Your task to perform on an android device: Go to accessibility settings Image 0: 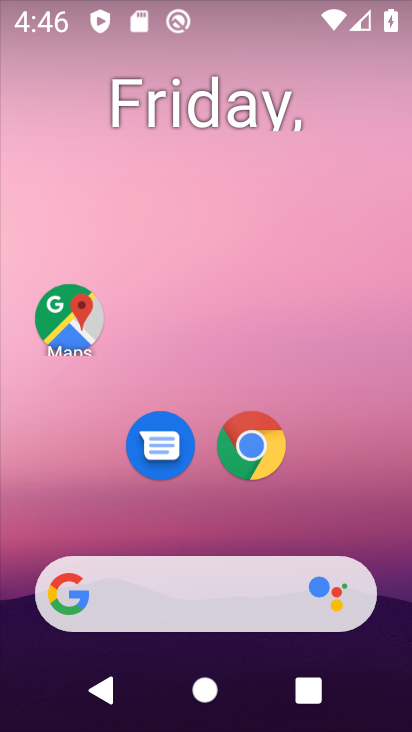
Step 0: drag from (343, 506) to (339, 51)
Your task to perform on an android device: Go to accessibility settings Image 1: 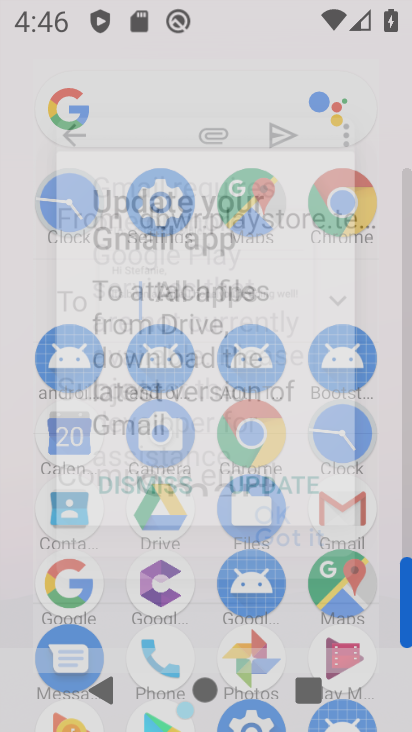
Step 1: click (177, 235)
Your task to perform on an android device: Go to accessibility settings Image 2: 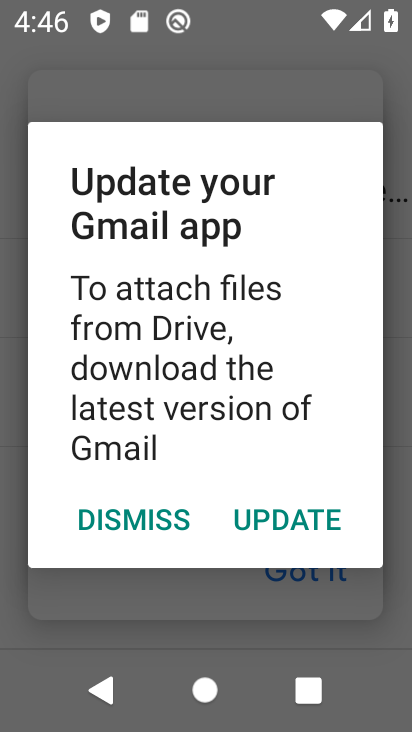
Step 2: click (92, 514)
Your task to perform on an android device: Go to accessibility settings Image 3: 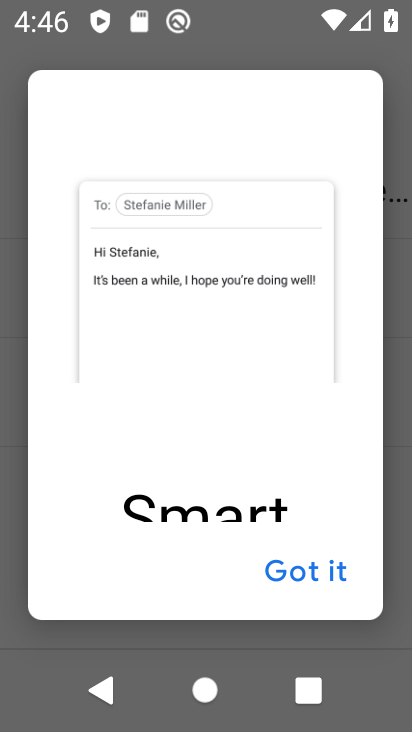
Step 3: click (319, 564)
Your task to perform on an android device: Go to accessibility settings Image 4: 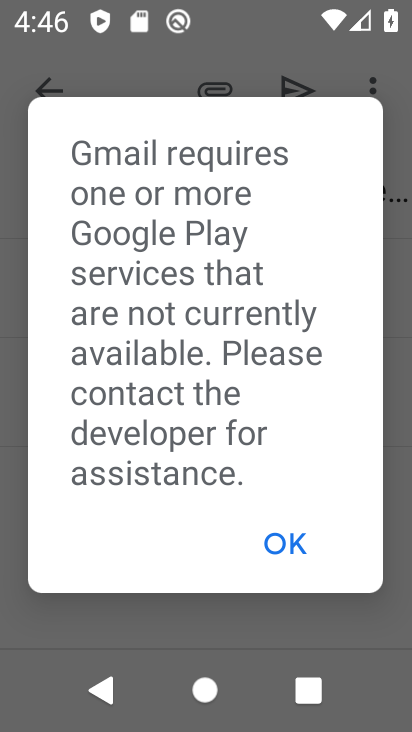
Step 4: click (319, 564)
Your task to perform on an android device: Go to accessibility settings Image 5: 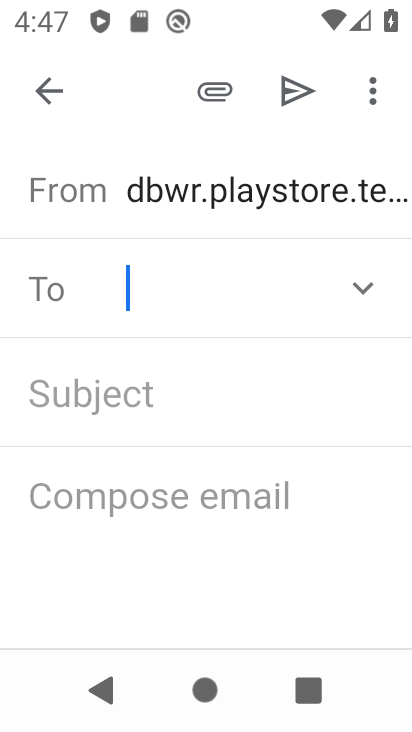
Step 5: click (62, 104)
Your task to perform on an android device: Go to accessibility settings Image 6: 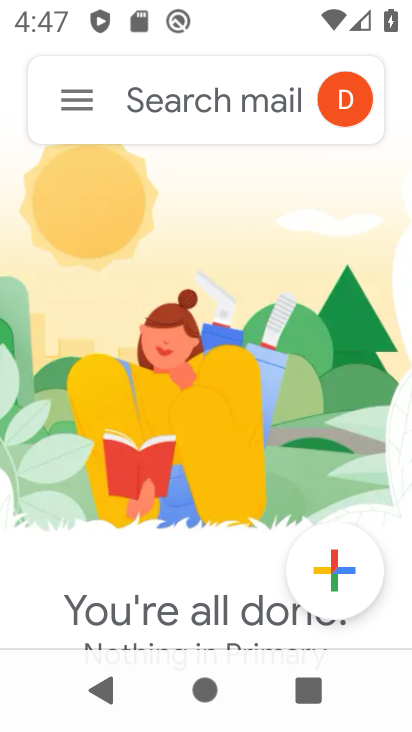
Step 6: press home button
Your task to perform on an android device: Go to accessibility settings Image 7: 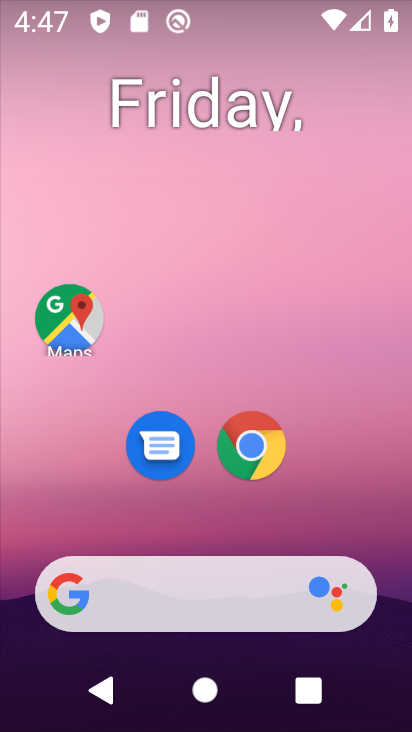
Step 7: drag from (360, 479) to (343, 121)
Your task to perform on an android device: Go to accessibility settings Image 8: 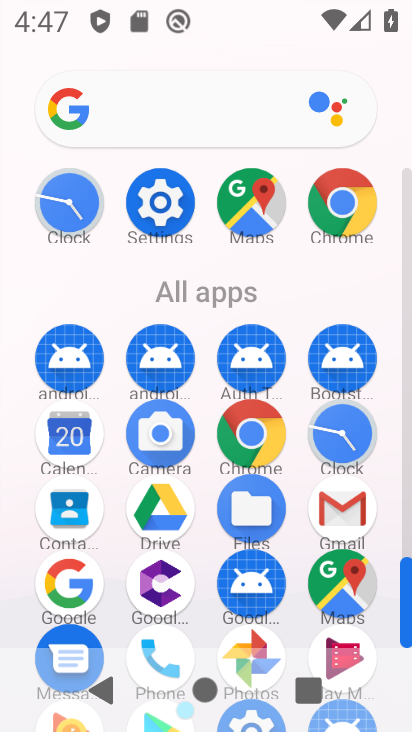
Step 8: click (169, 233)
Your task to perform on an android device: Go to accessibility settings Image 9: 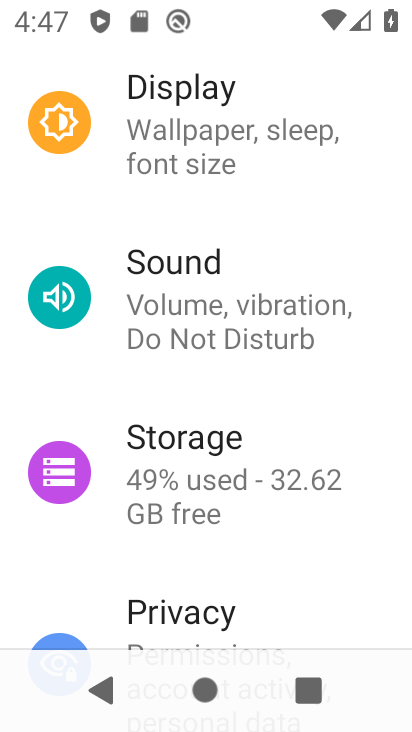
Step 9: drag from (207, 586) to (243, 93)
Your task to perform on an android device: Go to accessibility settings Image 10: 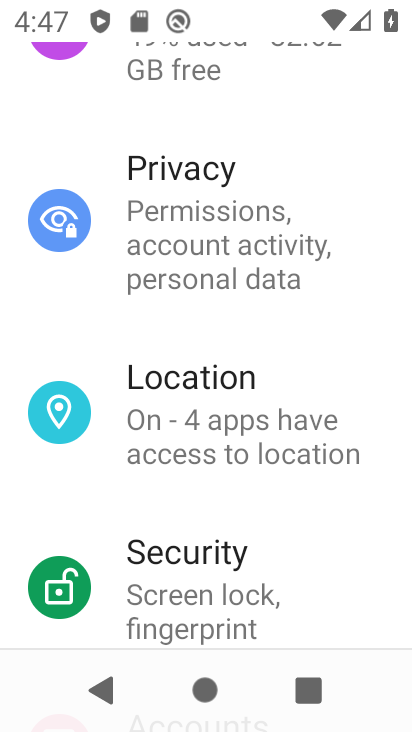
Step 10: drag from (186, 588) to (223, 288)
Your task to perform on an android device: Go to accessibility settings Image 11: 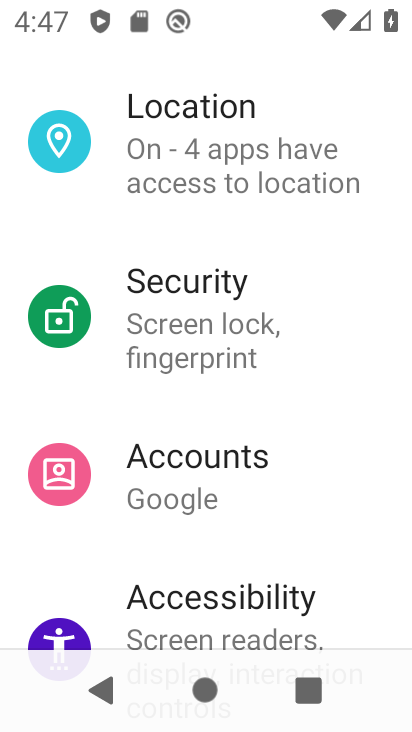
Step 11: click (206, 596)
Your task to perform on an android device: Go to accessibility settings Image 12: 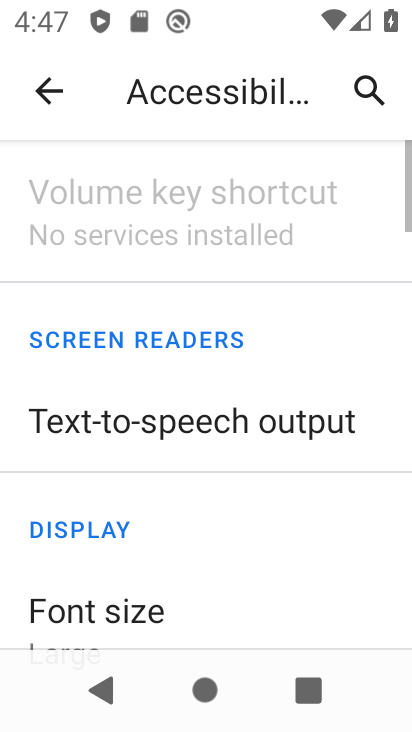
Step 12: task complete